Your task to perform on an android device: turn off notifications settings in the gmail app Image 0: 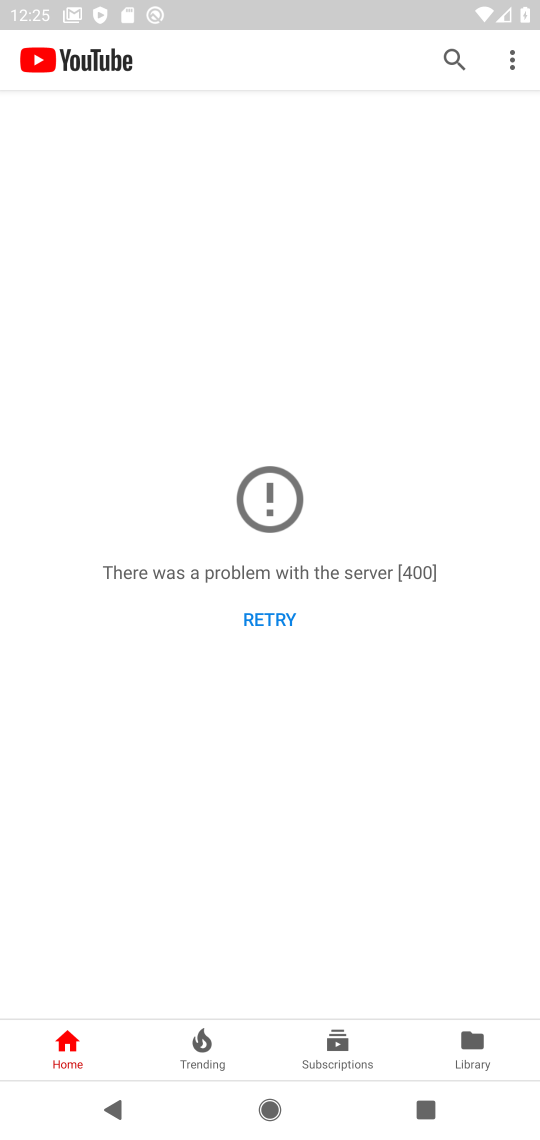
Step 0: press home button
Your task to perform on an android device: turn off notifications settings in the gmail app Image 1: 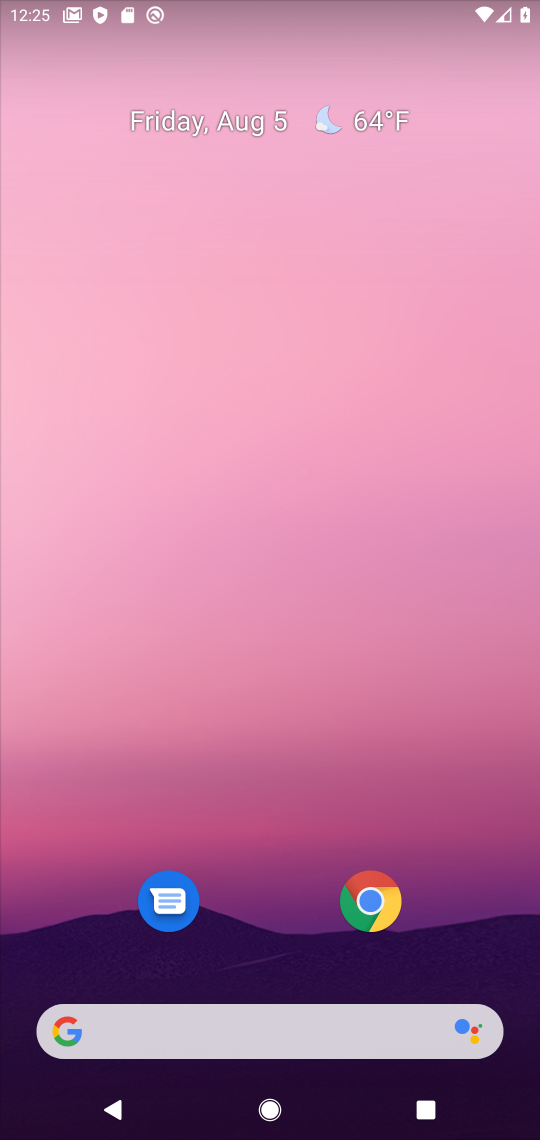
Step 1: drag from (277, 875) to (279, 62)
Your task to perform on an android device: turn off notifications settings in the gmail app Image 2: 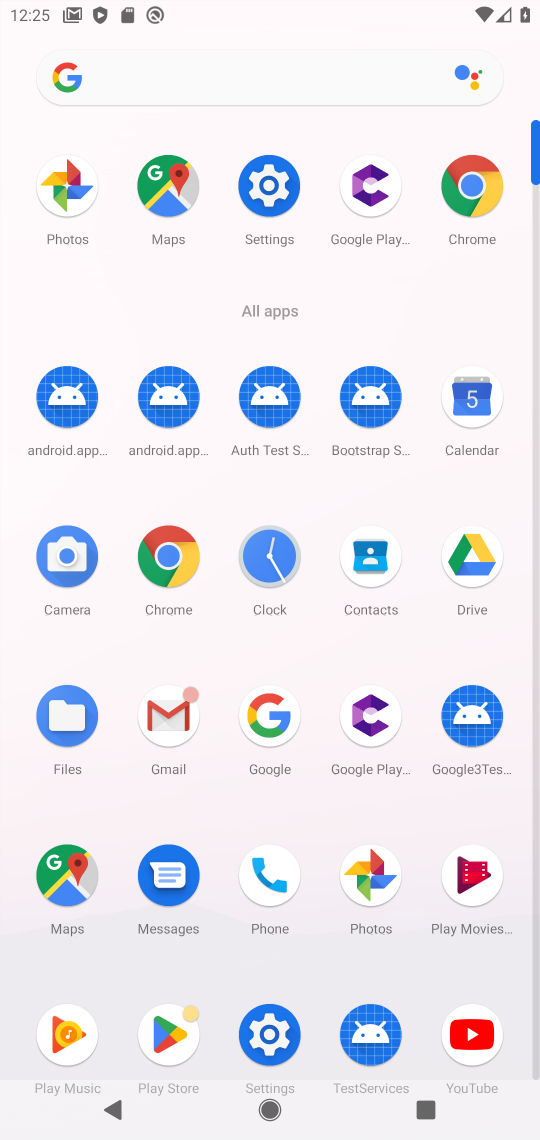
Step 2: click (175, 727)
Your task to perform on an android device: turn off notifications settings in the gmail app Image 3: 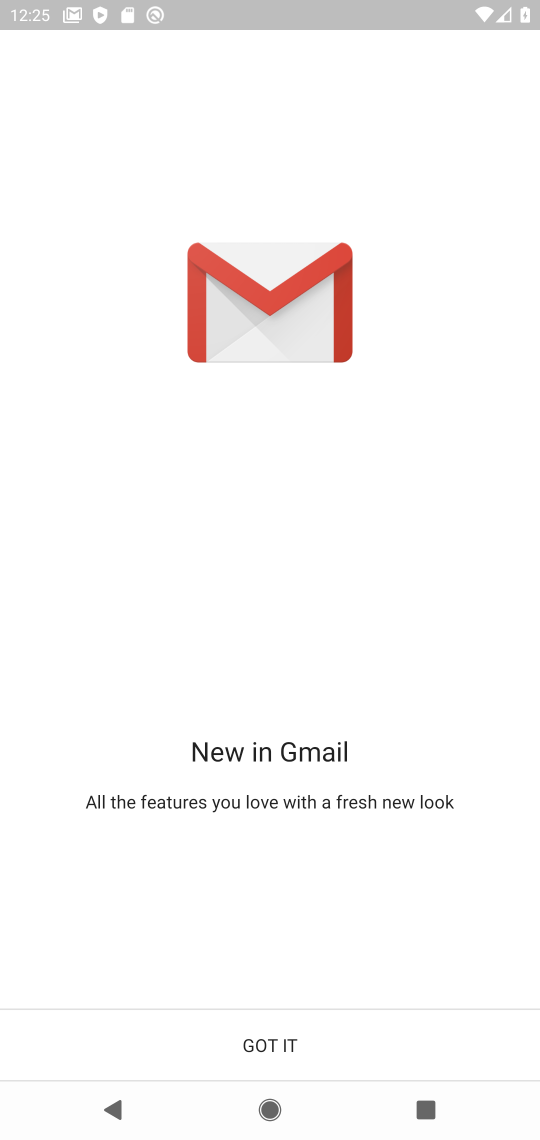
Step 3: click (254, 1034)
Your task to perform on an android device: turn off notifications settings in the gmail app Image 4: 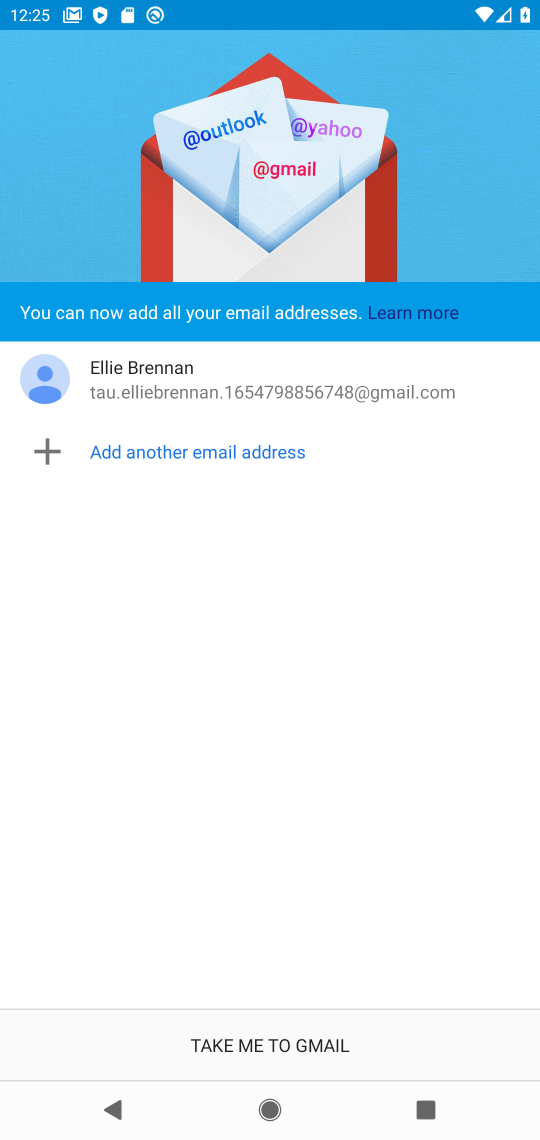
Step 4: click (254, 1034)
Your task to perform on an android device: turn off notifications settings in the gmail app Image 5: 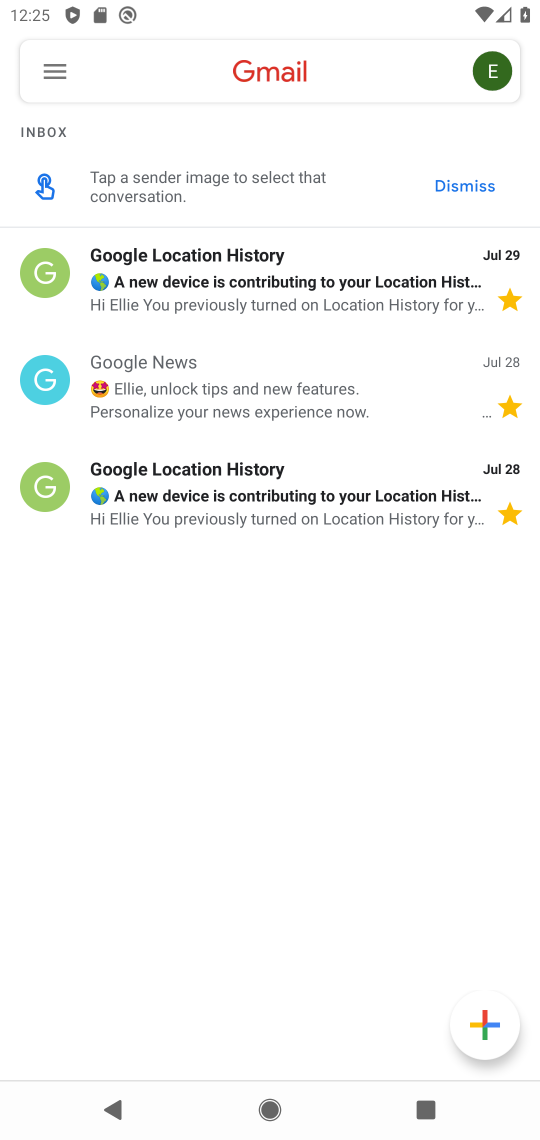
Step 5: click (45, 78)
Your task to perform on an android device: turn off notifications settings in the gmail app Image 6: 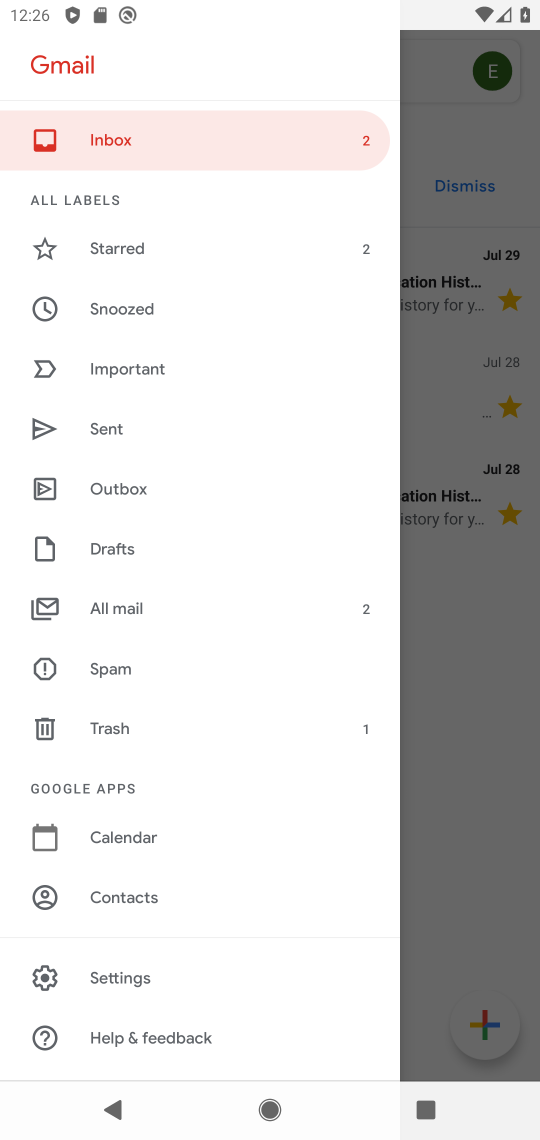
Step 6: drag from (280, 790) to (279, 667)
Your task to perform on an android device: turn off notifications settings in the gmail app Image 7: 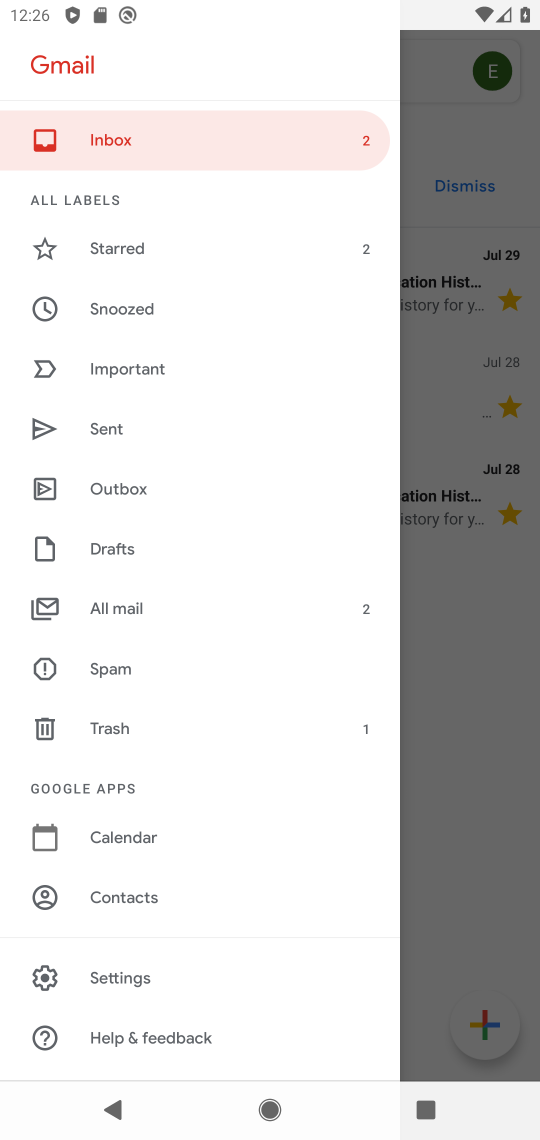
Step 7: click (115, 984)
Your task to perform on an android device: turn off notifications settings in the gmail app Image 8: 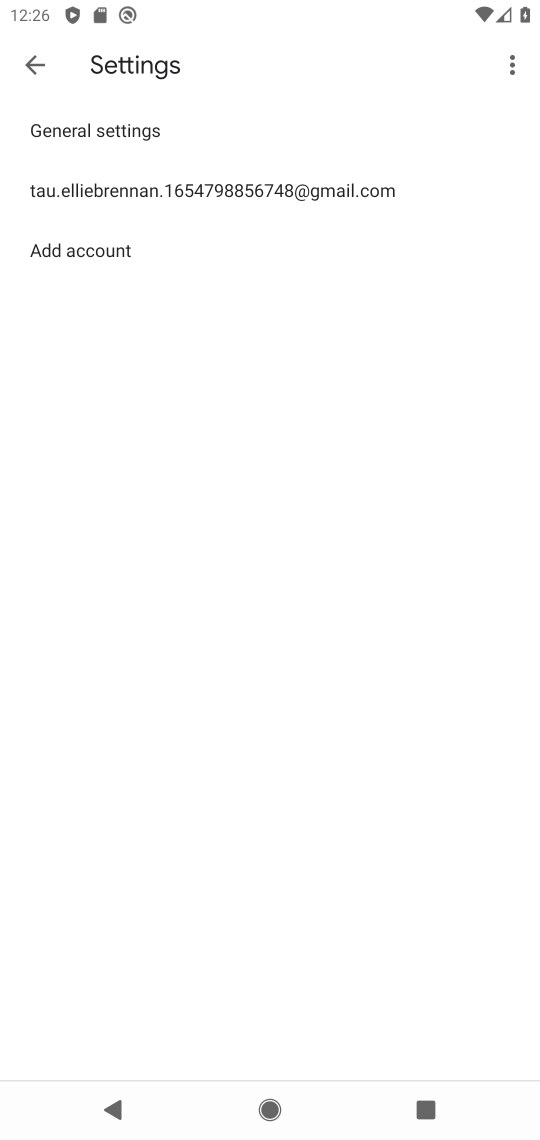
Step 8: click (127, 144)
Your task to perform on an android device: turn off notifications settings in the gmail app Image 9: 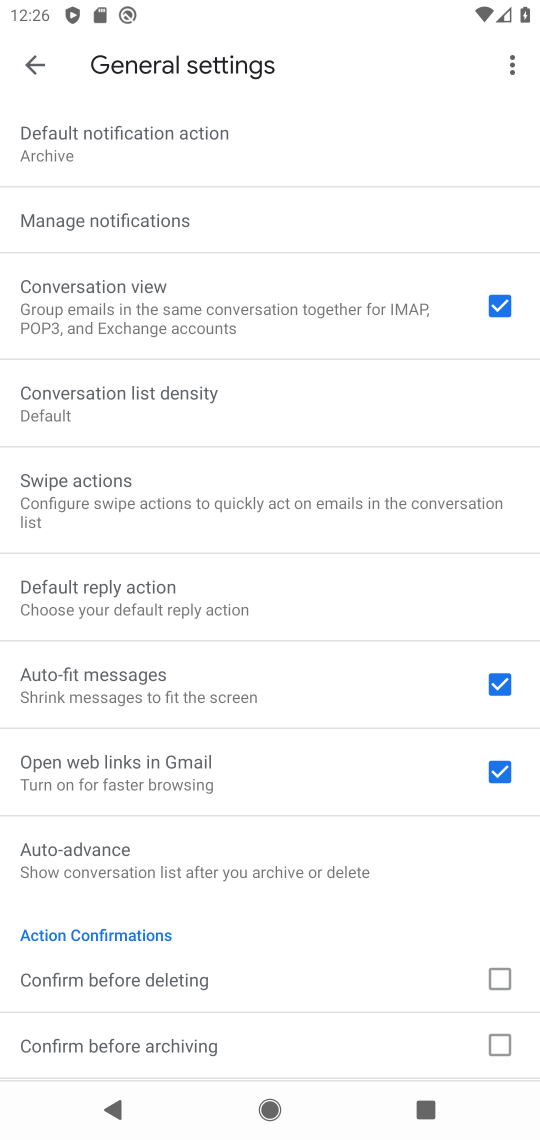
Step 9: click (204, 225)
Your task to perform on an android device: turn off notifications settings in the gmail app Image 10: 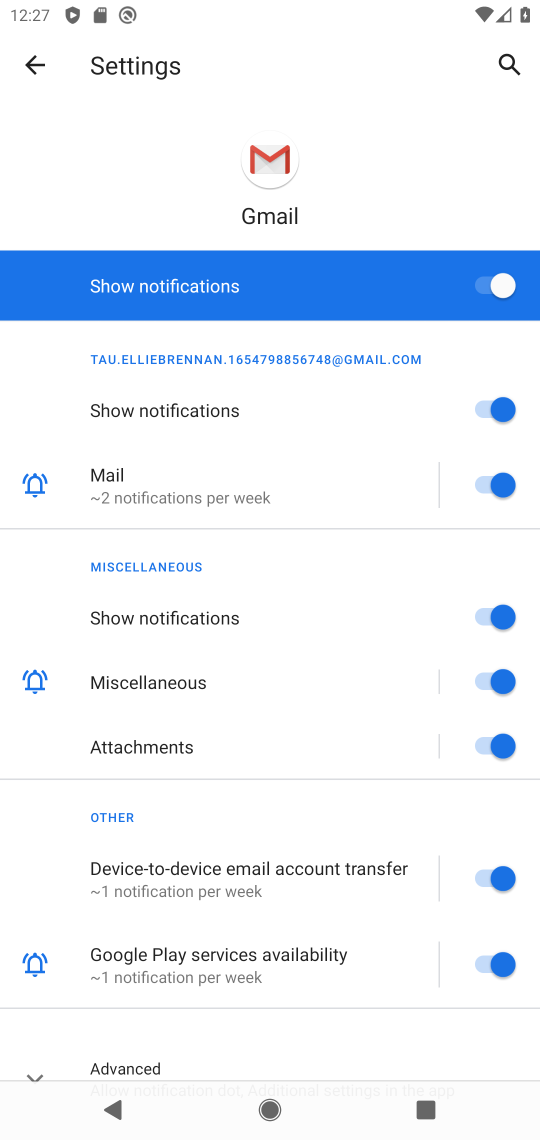
Step 10: click (491, 289)
Your task to perform on an android device: turn off notifications settings in the gmail app Image 11: 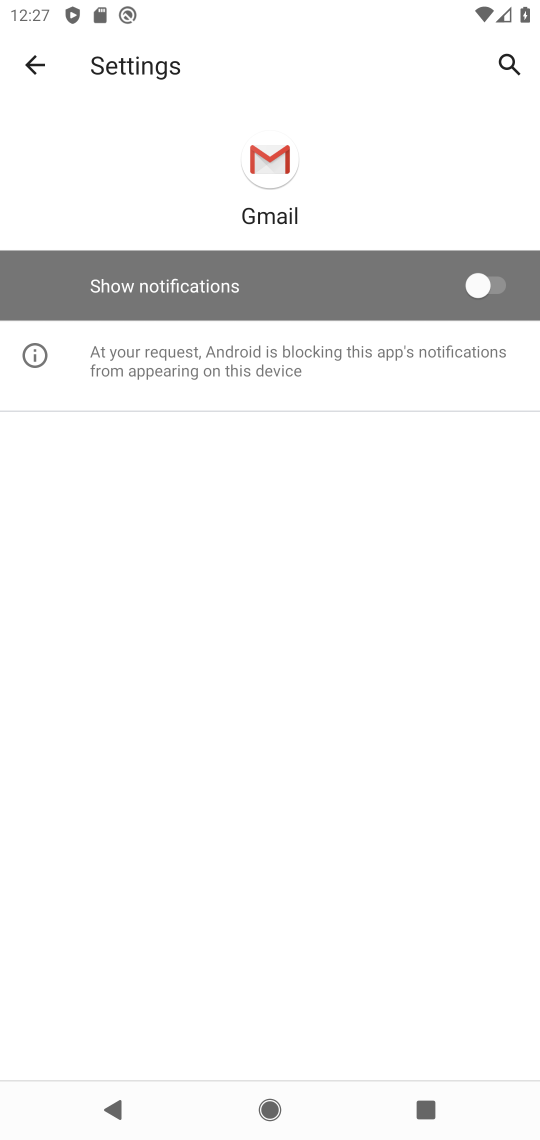
Step 11: task complete